Your task to perform on an android device: Search for Italian restaurants on Maps Image 0: 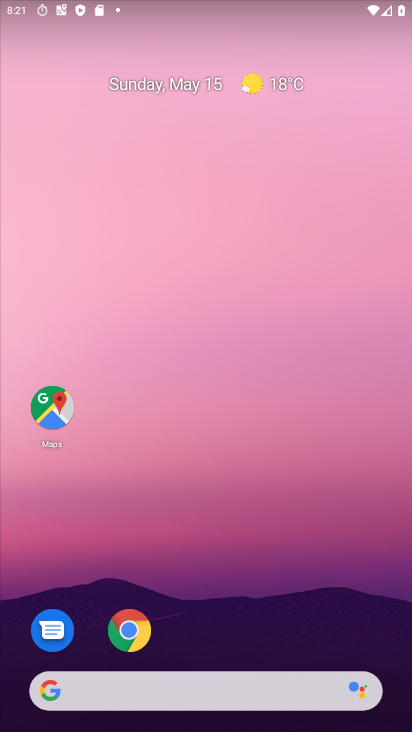
Step 0: click (277, 125)
Your task to perform on an android device: Search for Italian restaurants on Maps Image 1: 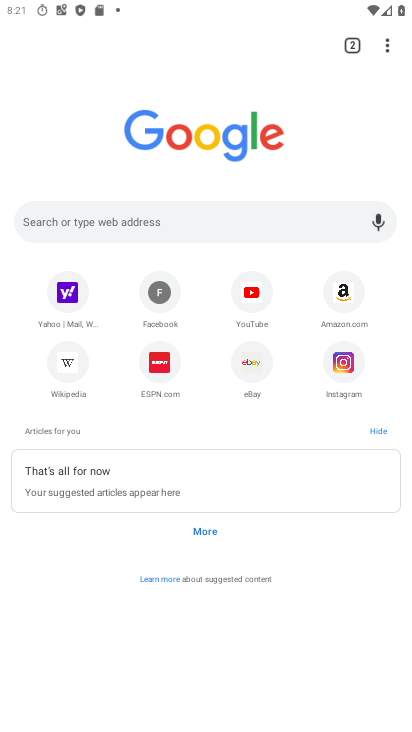
Step 1: press home button
Your task to perform on an android device: Search for Italian restaurants on Maps Image 2: 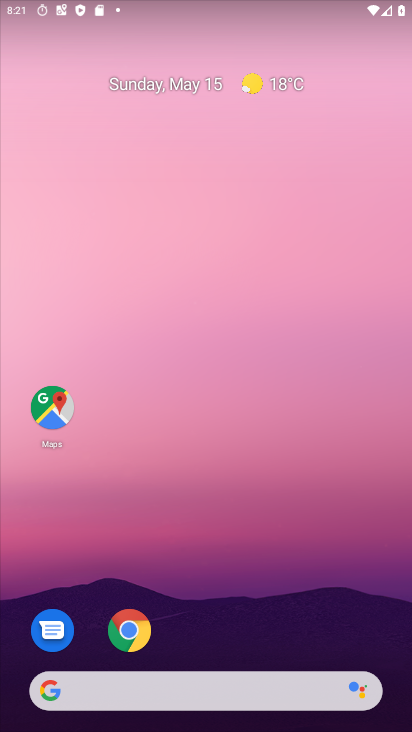
Step 2: drag from (149, 624) to (231, 2)
Your task to perform on an android device: Search for Italian restaurants on Maps Image 3: 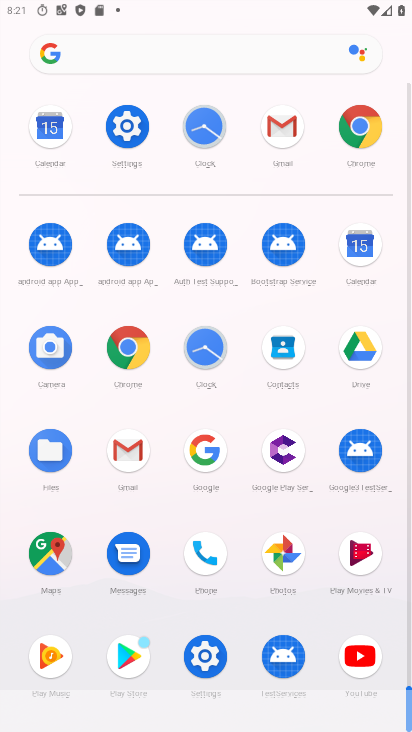
Step 3: drag from (236, 662) to (264, 305)
Your task to perform on an android device: Search for Italian restaurants on Maps Image 4: 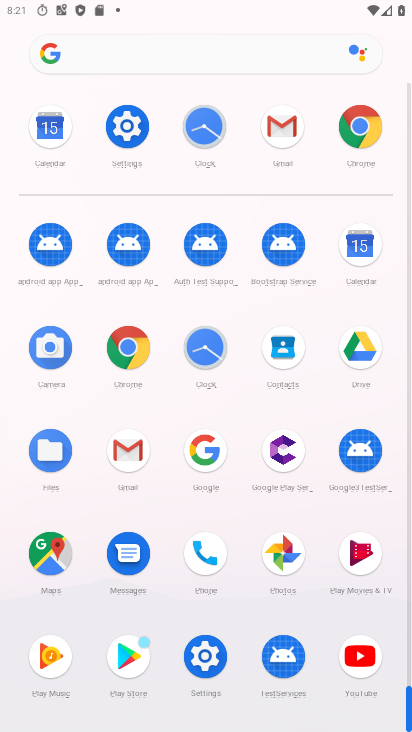
Step 4: drag from (177, 613) to (190, 285)
Your task to perform on an android device: Search for Italian restaurants on Maps Image 5: 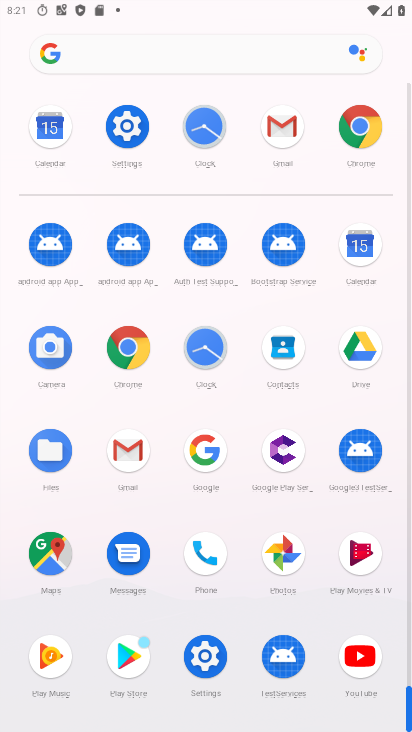
Step 5: drag from (168, 604) to (218, 271)
Your task to perform on an android device: Search for Italian restaurants on Maps Image 6: 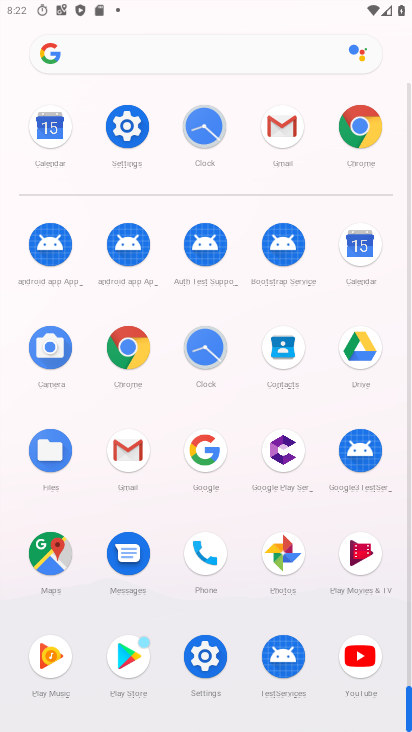
Step 6: drag from (169, 619) to (199, 326)
Your task to perform on an android device: Search for Italian restaurants on Maps Image 7: 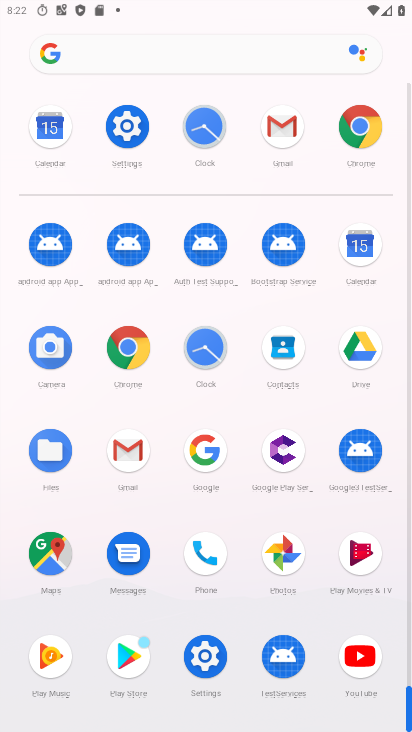
Step 7: click (42, 556)
Your task to perform on an android device: Search for Italian restaurants on Maps Image 8: 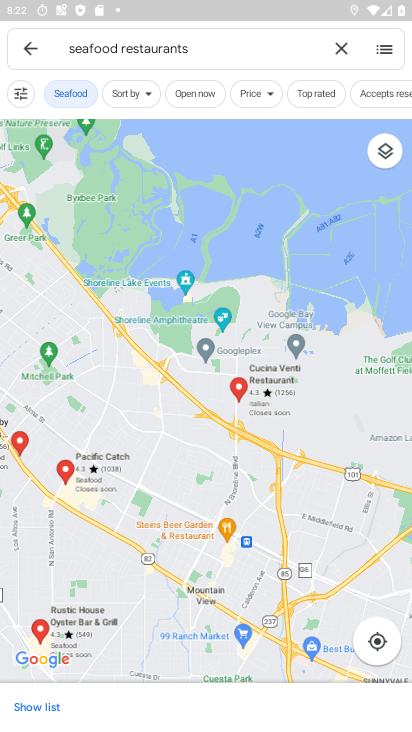
Step 8: click (338, 54)
Your task to perform on an android device: Search for Italian restaurants on Maps Image 9: 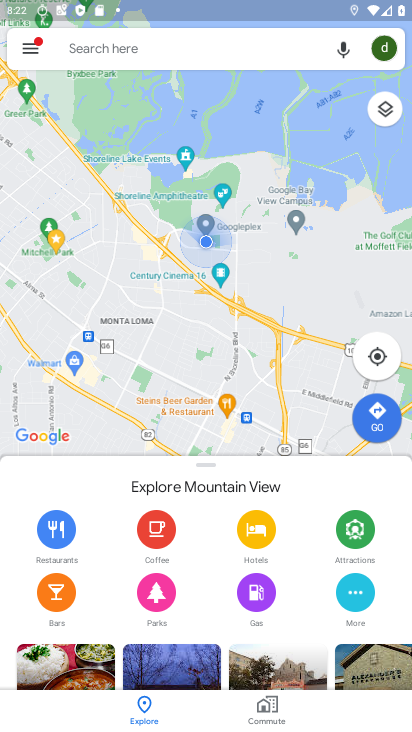
Step 9: click (130, 44)
Your task to perform on an android device: Search for Italian restaurants on Maps Image 10: 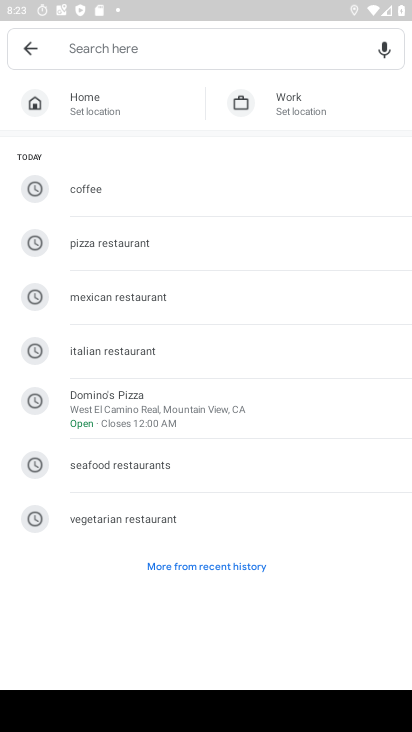
Step 10: click (145, 359)
Your task to perform on an android device: Search for Italian restaurants on Maps Image 11: 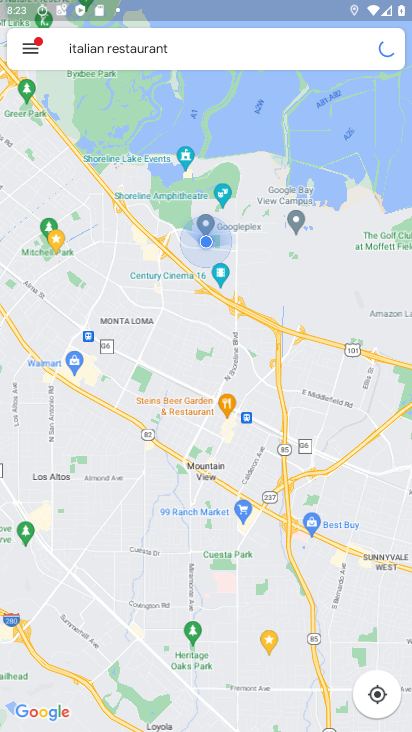
Step 11: task complete